Your task to perform on an android device: turn pop-ups on in chrome Image 0: 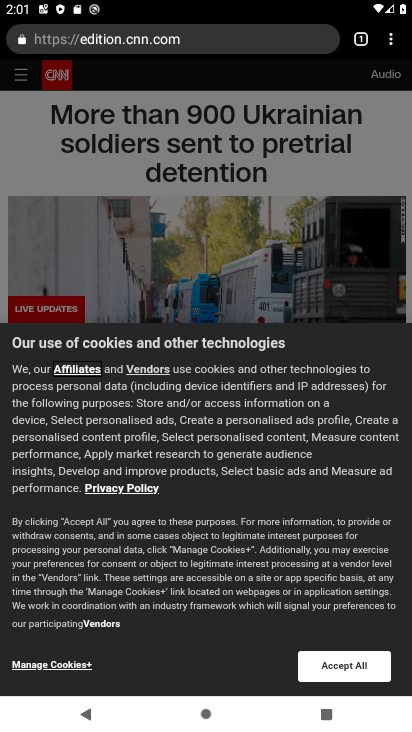
Step 0: click (388, 39)
Your task to perform on an android device: turn pop-ups on in chrome Image 1: 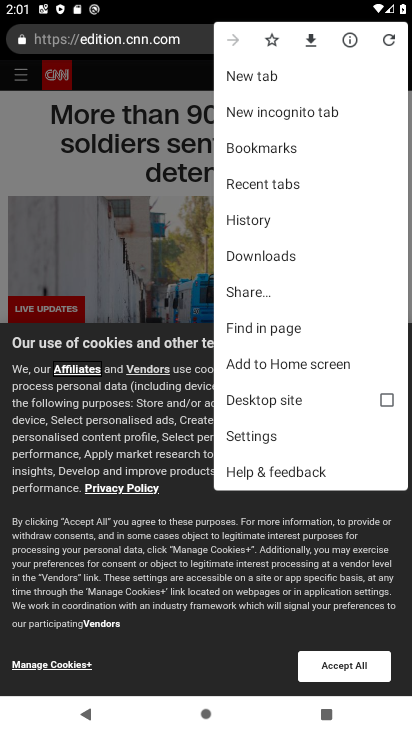
Step 1: click (260, 437)
Your task to perform on an android device: turn pop-ups on in chrome Image 2: 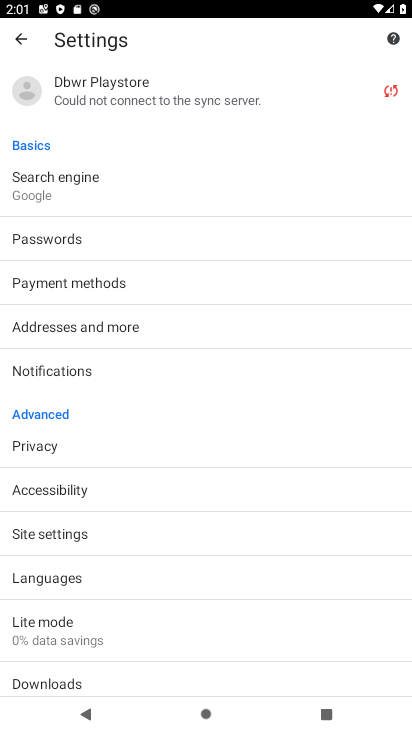
Step 2: drag from (187, 691) to (162, 616)
Your task to perform on an android device: turn pop-ups on in chrome Image 3: 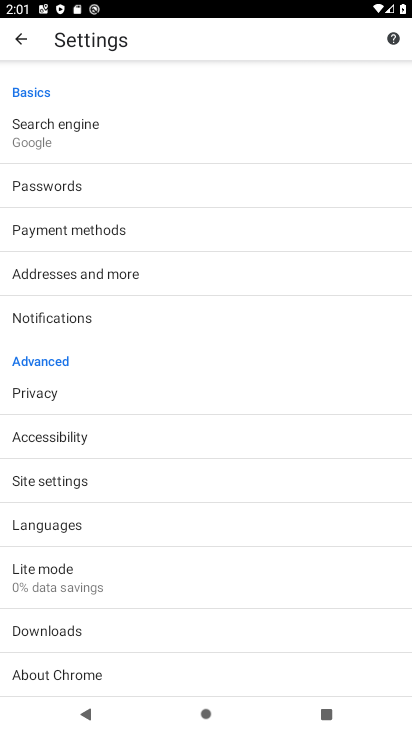
Step 3: click (189, 484)
Your task to perform on an android device: turn pop-ups on in chrome Image 4: 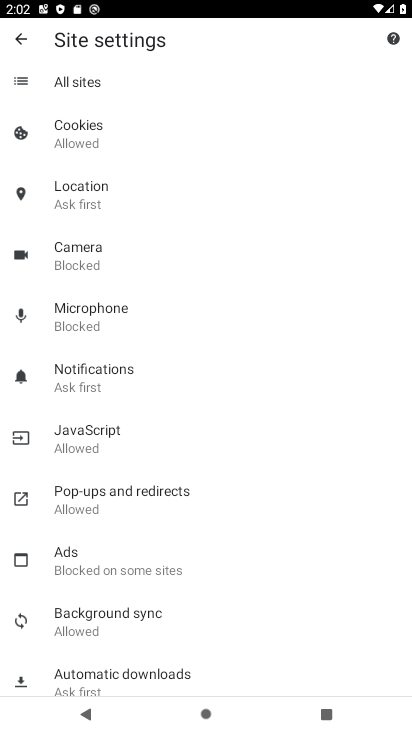
Step 4: click (180, 510)
Your task to perform on an android device: turn pop-ups on in chrome Image 5: 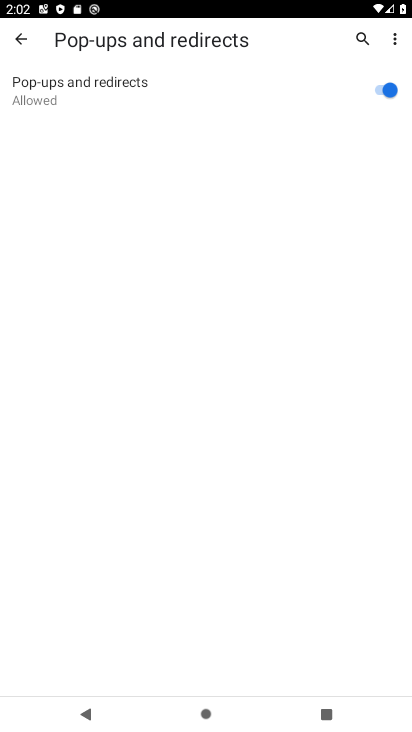
Step 5: click (402, 103)
Your task to perform on an android device: turn pop-ups on in chrome Image 6: 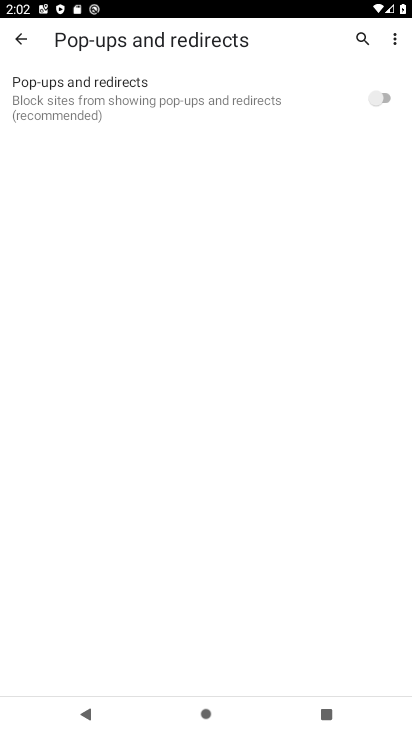
Step 6: task complete